Your task to perform on an android device: set an alarm Image 0: 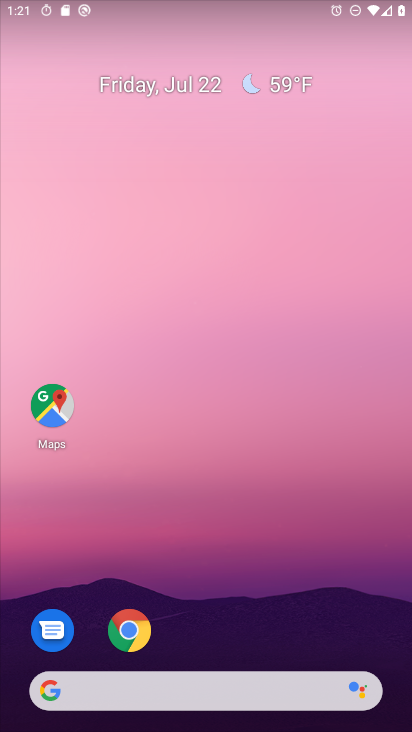
Step 0: press home button
Your task to perform on an android device: set an alarm Image 1: 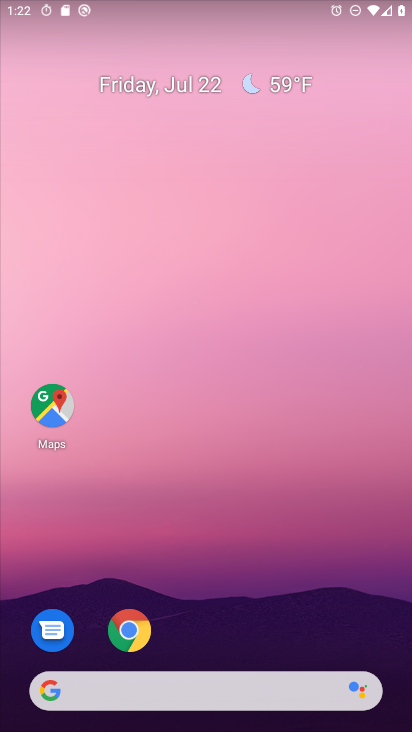
Step 1: drag from (247, 576) to (282, 128)
Your task to perform on an android device: set an alarm Image 2: 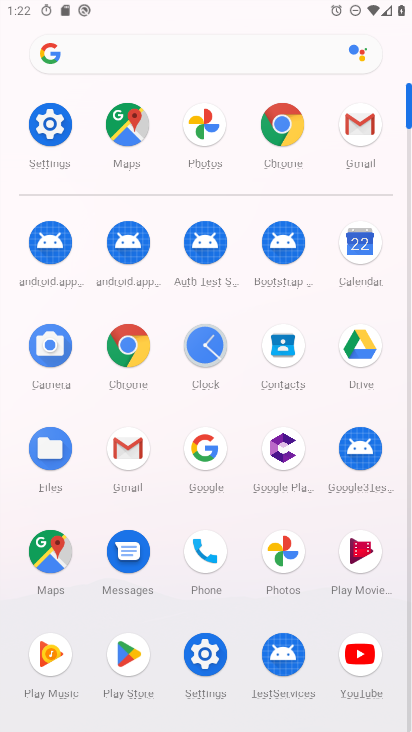
Step 2: click (194, 346)
Your task to perform on an android device: set an alarm Image 3: 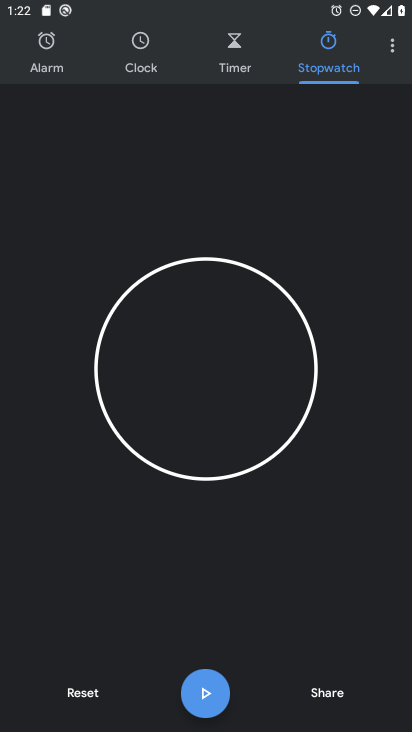
Step 3: click (51, 48)
Your task to perform on an android device: set an alarm Image 4: 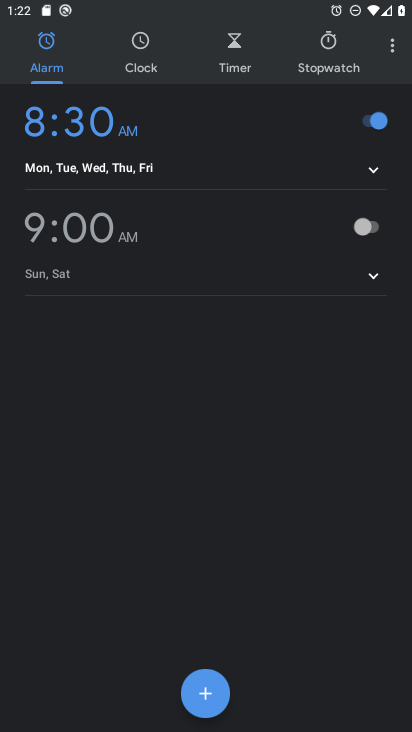
Step 4: click (362, 228)
Your task to perform on an android device: set an alarm Image 5: 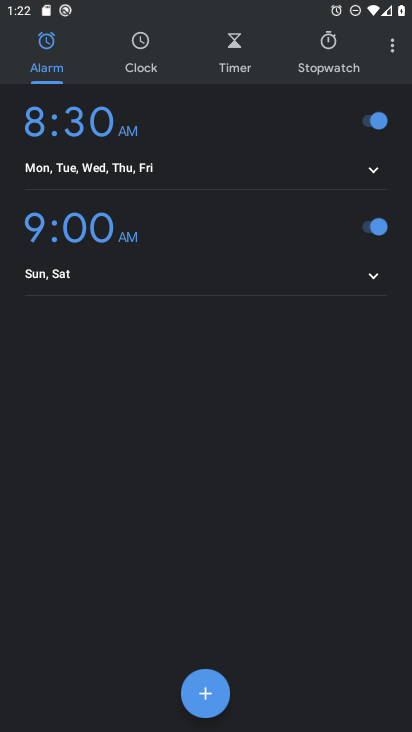
Step 5: task complete